Your task to perform on an android device: Search for sushi restaurants on Maps Image 0: 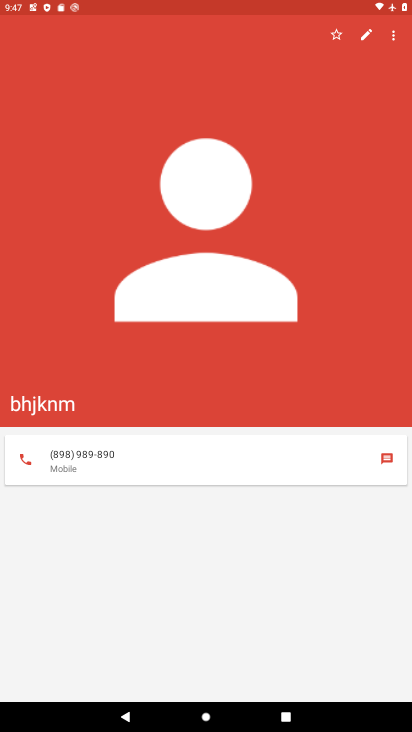
Step 0: press home button
Your task to perform on an android device: Search for sushi restaurants on Maps Image 1: 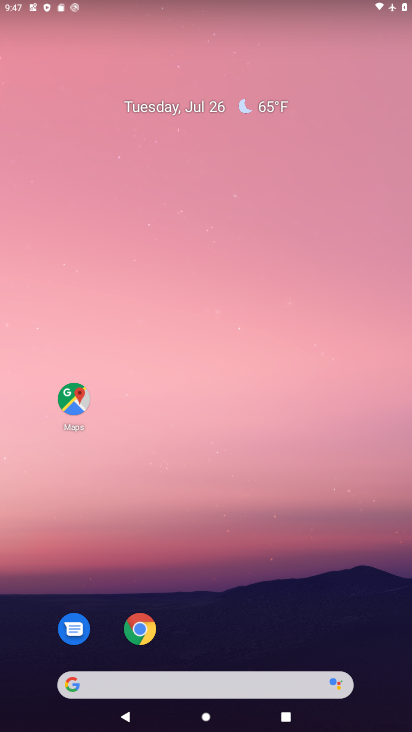
Step 1: drag from (342, 596) to (270, 64)
Your task to perform on an android device: Search for sushi restaurants on Maps Image 2: 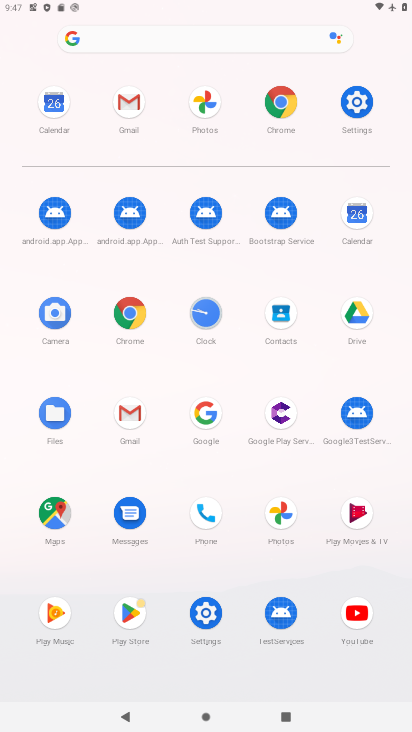
Step 2: click (58, 517)
Your task to perform on an android device: Search for sushi restaurants on Maps Image 3: 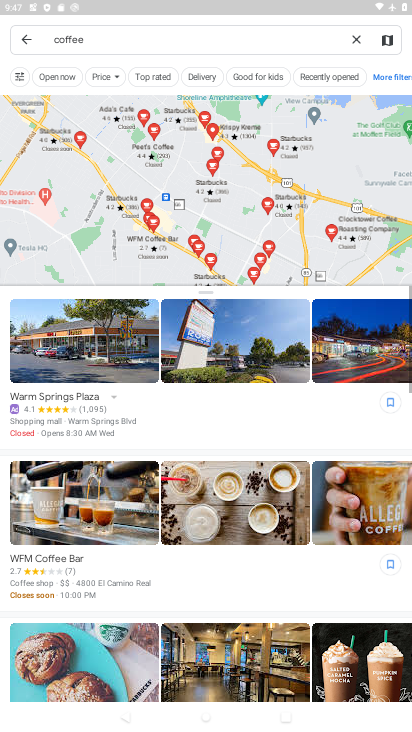
Step 3: click (353, 37)
Your task to perform on an android device: Search for sushi restaurants on Maps Image 4: 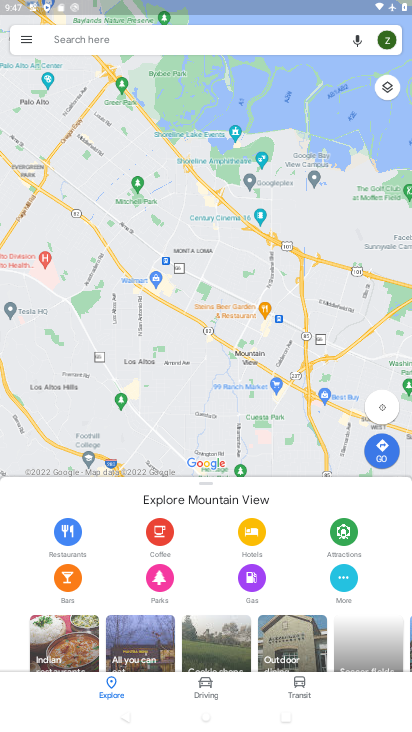
Step 4: click (282, 41)
Your task to perform on an android device: Search for sushi restaurants on Maps Image 5: 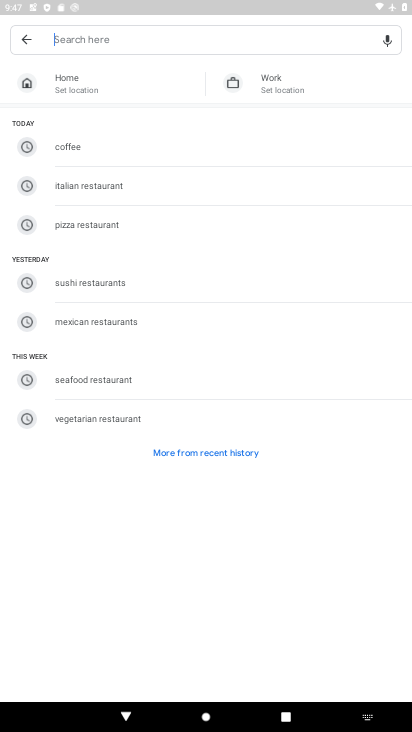
Step 5: click (104, 280)
Your task to perform on an android device: Search for sushi restaurants on Maps Image 6: 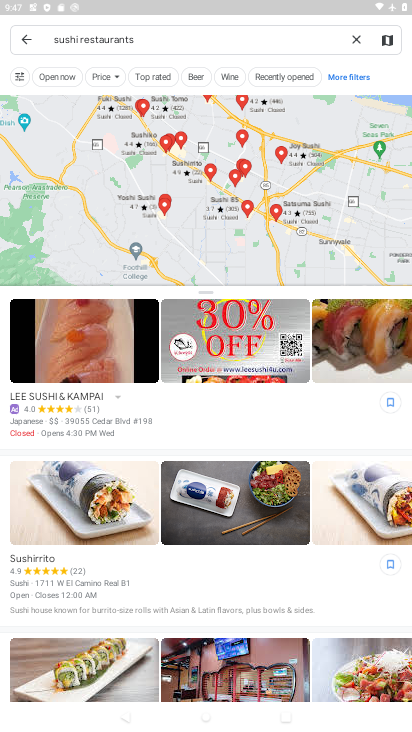
Step 6: task complete